Your task to perform on an android device: toggle notifications settings in the gmail app Image 0: 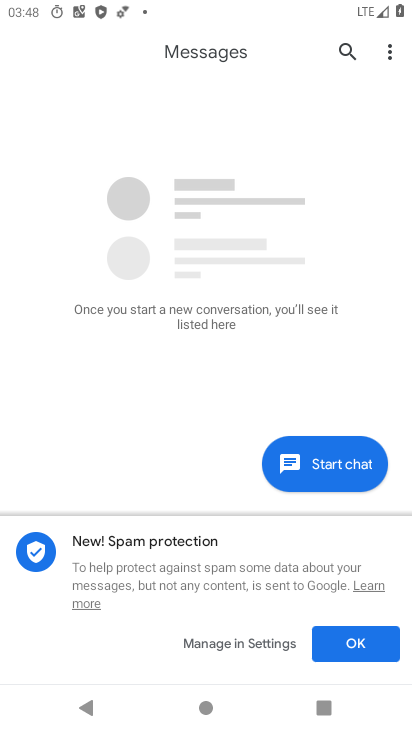
Step 0: press home button
Your task to perform on an android device: toggle notifications settings in the gmail app Image 1: 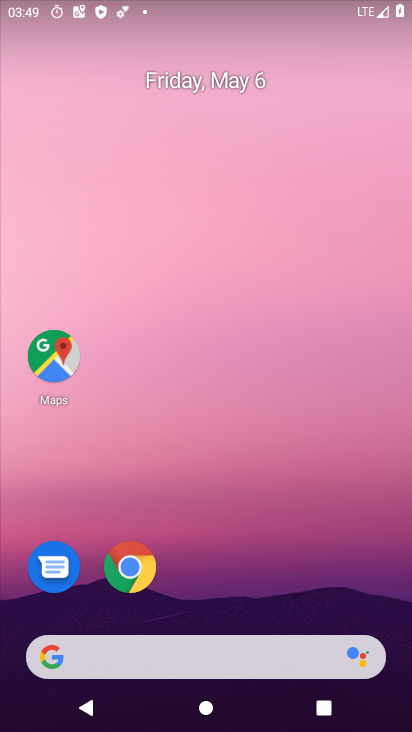
Step 1: drag from (149, 586) to (209, 222)
Your task to perform on an android device: toggle notifications settings in the gmail app Image 2: 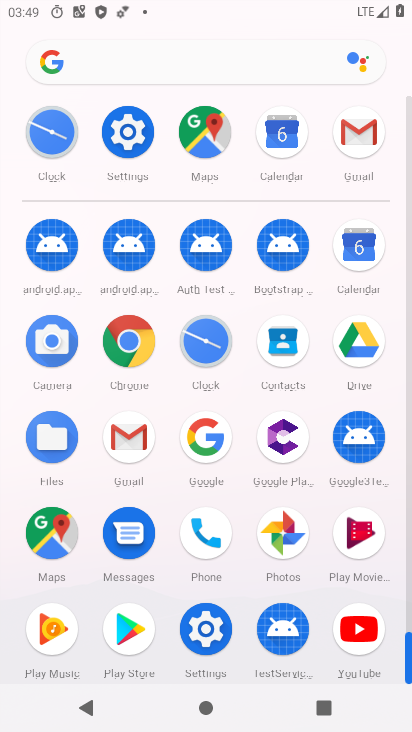
Step 2: click (373, 143)
Your task to perform on an android device: toggle notifications settings in the gmail app Image 3: 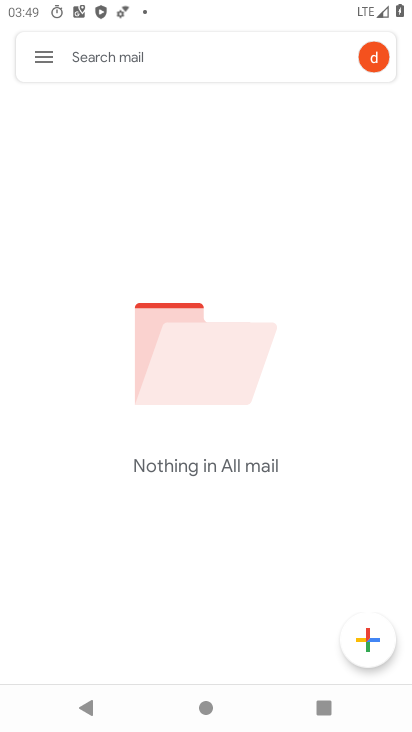
Step 3: click (32, 60)
Your task to perform on an android device: toggle notifications settings in the gmail app Image 4: 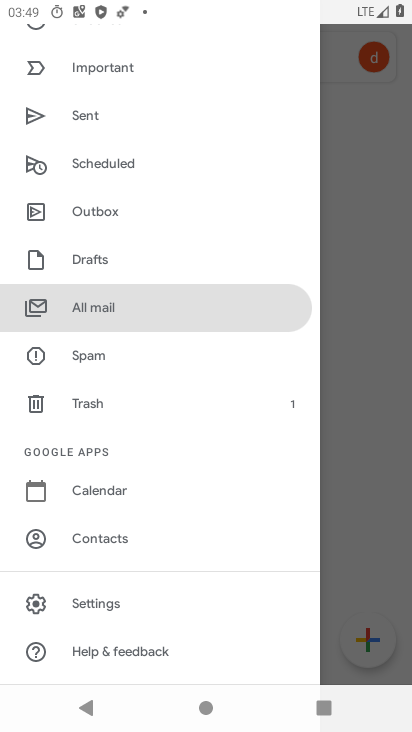
Step 4: click (111, 596)
Your task to perform on an android device: toggle notifications settings in the gmail app Image 5: 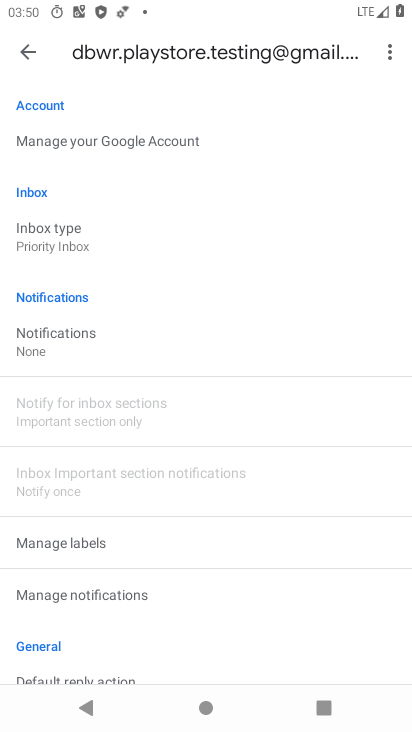
Step 5: click (88, 336)
Your task to perform on an android device: toggle notifications settings in the gmail app Image 6: 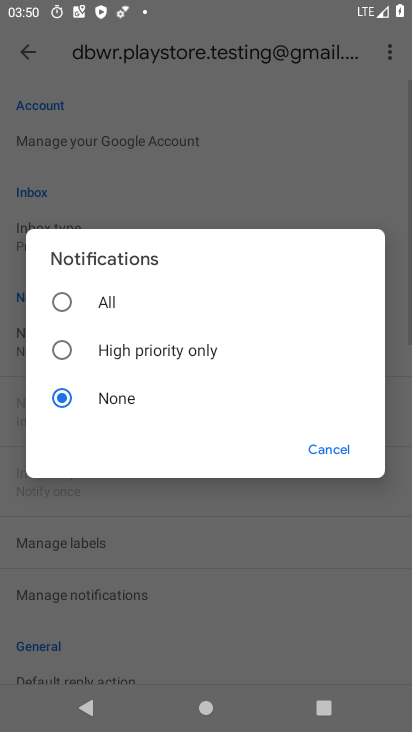
Step 6: click (95, 302)
Your task to perform on an android device: toggle notifications settings in the gmail app Image 7: 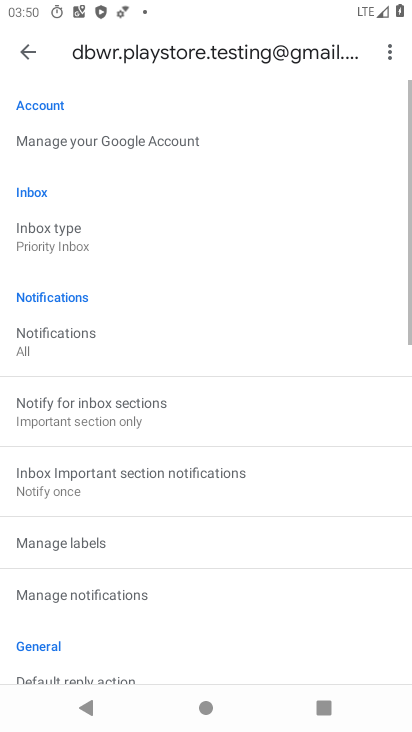
Step 7: task complete